Your task to perform on an android device: turn on bluetooth scan Image 0: 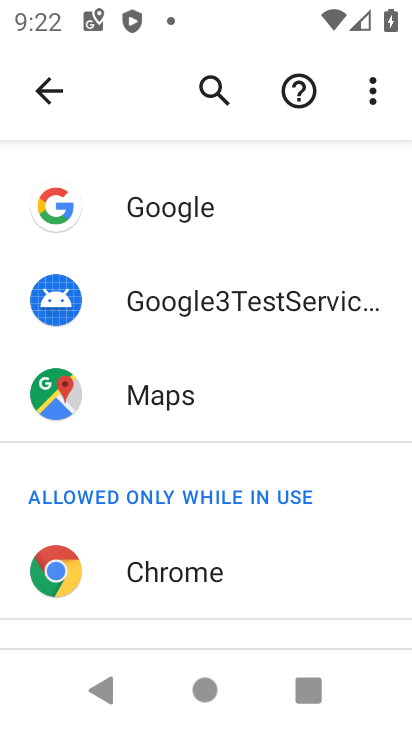
Step 0: click (65, 90)
Your task to perform on an android device: turn on bluetooth scan Image 1: 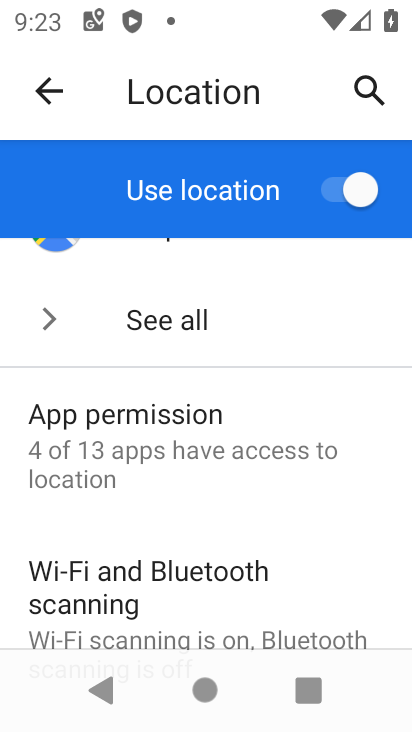
Step 1: click (220, 619)
Your task to perform on an android device: turn on bluetooth scan Image 2: 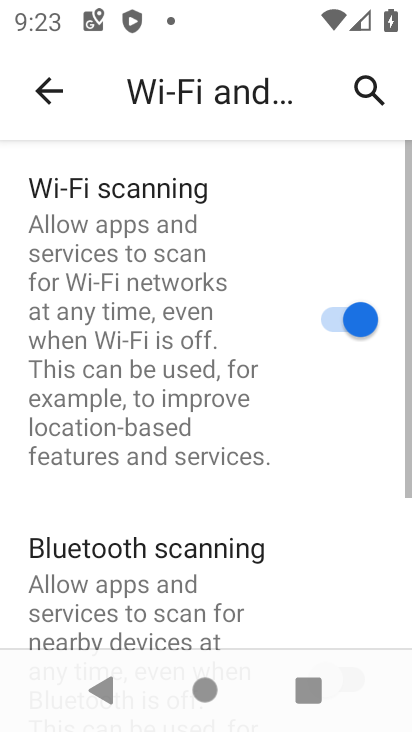
Step 2: click (239, 564)
Your task to perform on an android device: turn on bluetooth scan Image 3: 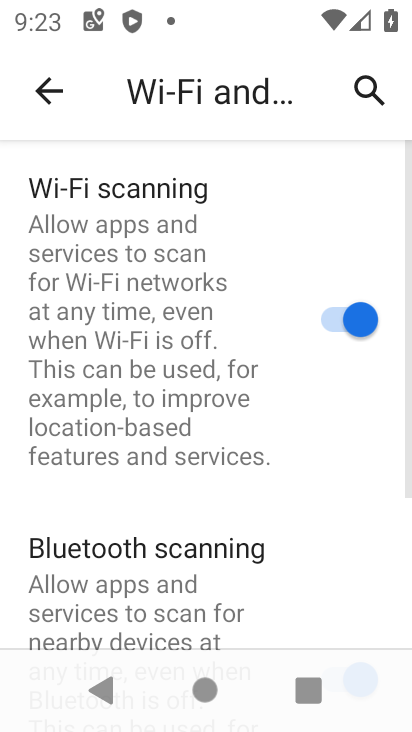
Step 3: task complete